Your task to perform on an android device: Open sound settings Image 0: 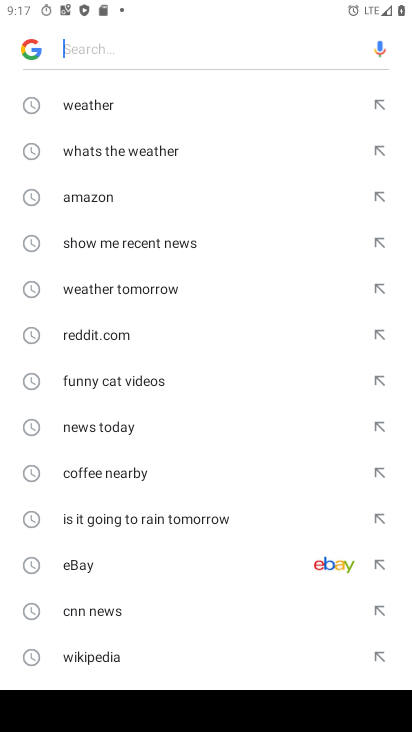
Step 0: press home button
Your task to perform on an android device: Open sound settings Image 1: 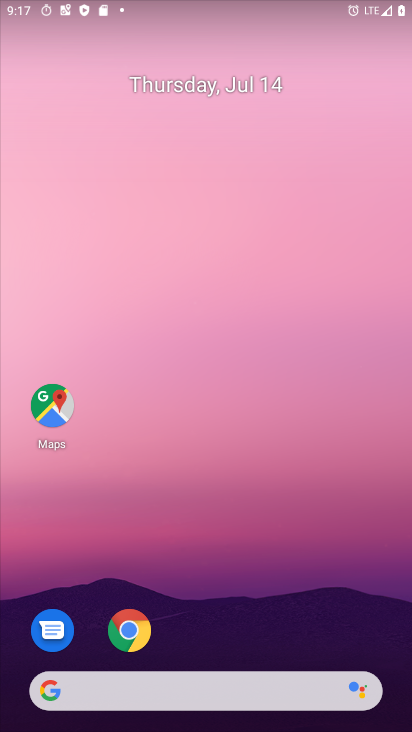
Step 1: drag from (220, 682) to (205, 207)
Your task to perform on an android device: Open sound settings Image 2: 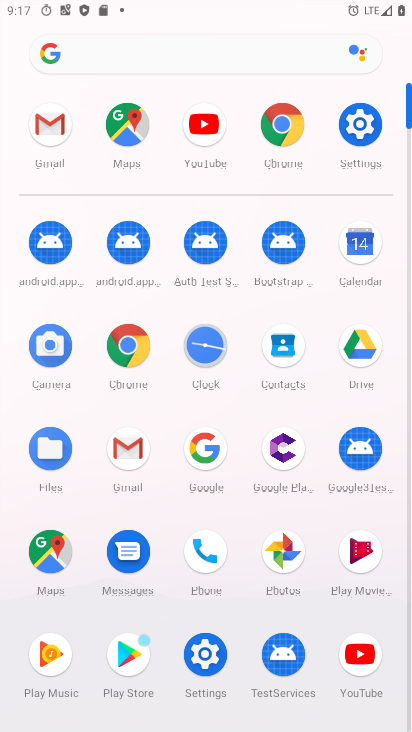
Step 2: click (373, 113)
Your task to perform on an android device: Open sound settings Image 3: 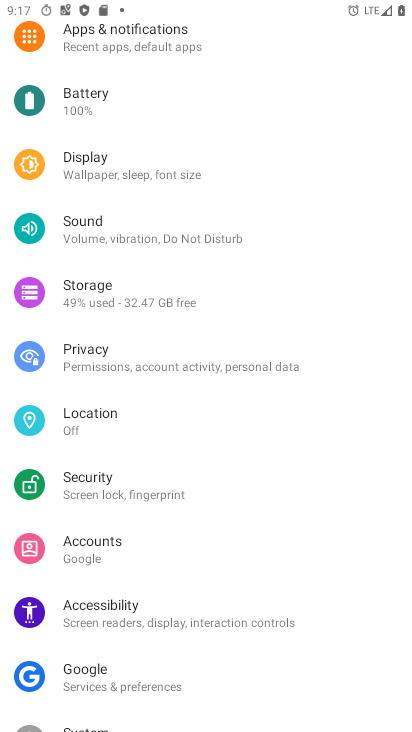
Step 3: click (92, 232)
Your task to perform on an android device: Open sound settings Image 4: 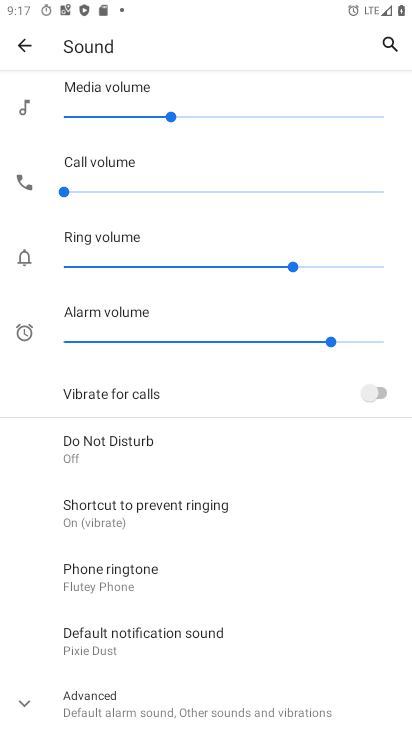
Step 4: task complete